Your task to perform on an android device: check android version Image 0: 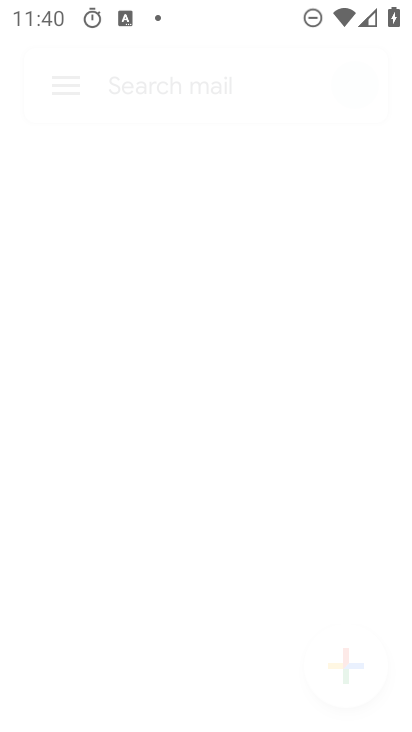
Step 0: drag from (218, 620) to (271, 125)
Your task to perform on an android device: check android version Image 1: 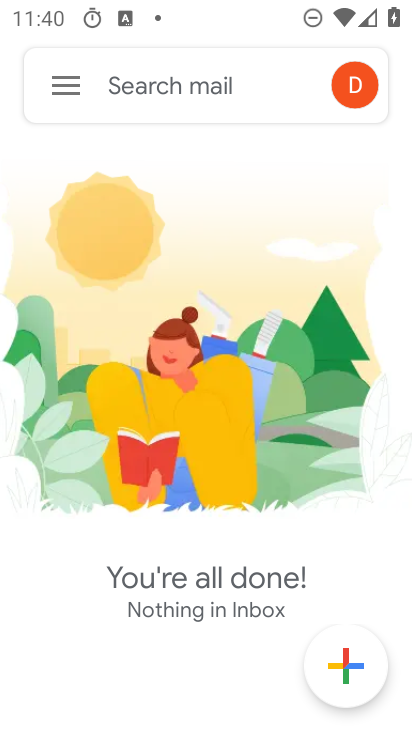
Step 1: press home button
Your task to perform on an android device: check android version Image 2: 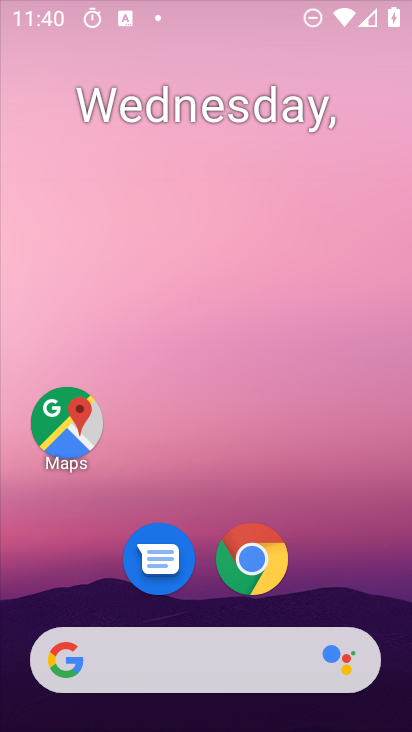
Step 2: drag from (256, 685) to (312, 79)
Your task to perform on an android device: check android version Image 3: 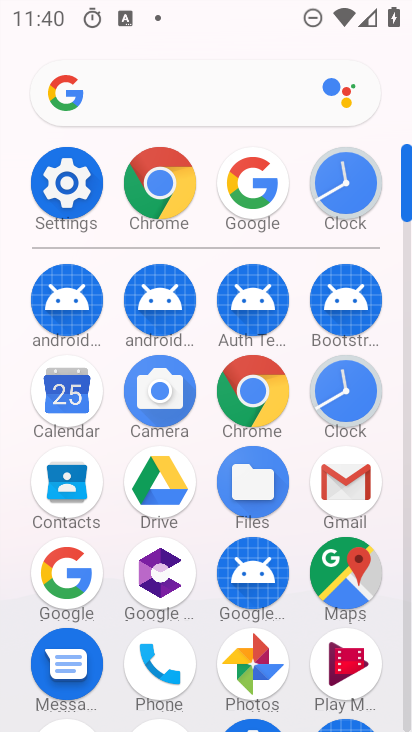
Step 3: click (71, 195)
Your task to perform on an android device: check android version Image 4: 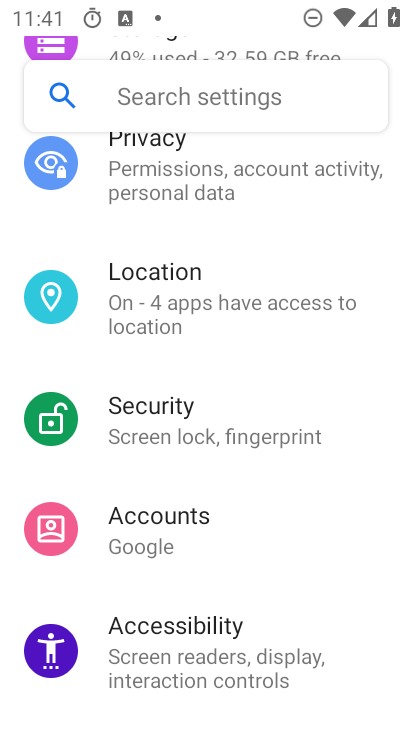
Step 4: drag from (160, 621) to (203, 116)
Your task to perform on an android device: check android version Image 5: 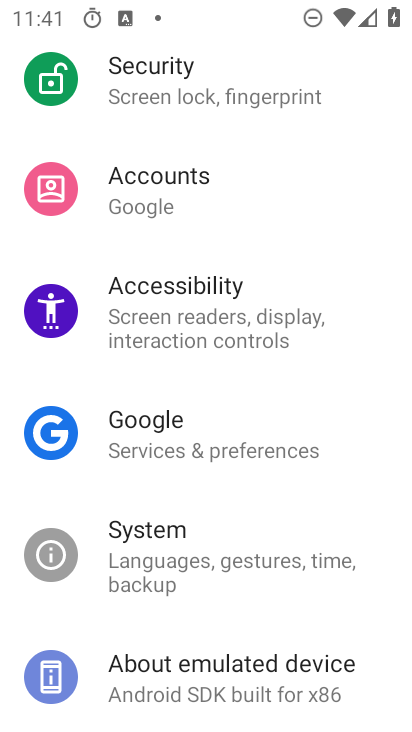
Step 5: drag from (228, 292) to (228, 254)
Your task to perform on an android device: check android version Image 6: 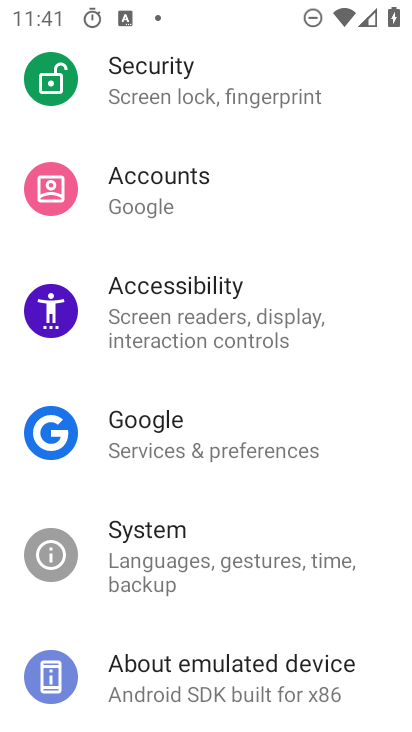
Step 6: drag from (234, 640) to (240, 320)
Your task to perform on an android device: check android version Image 7: 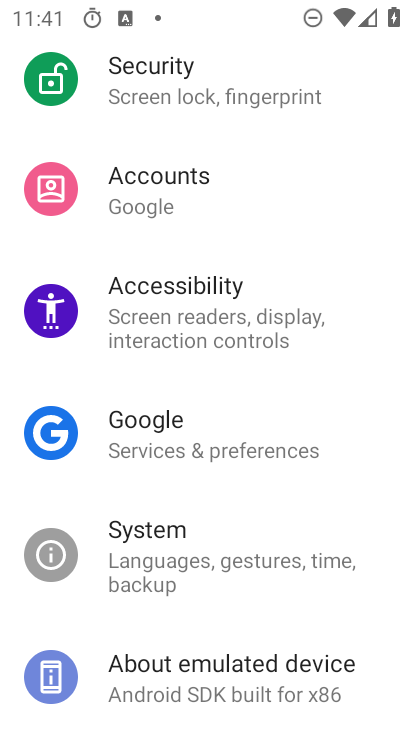
Step 7: click (260, 665)
Your task to perform on an android device: check android version Image 8: 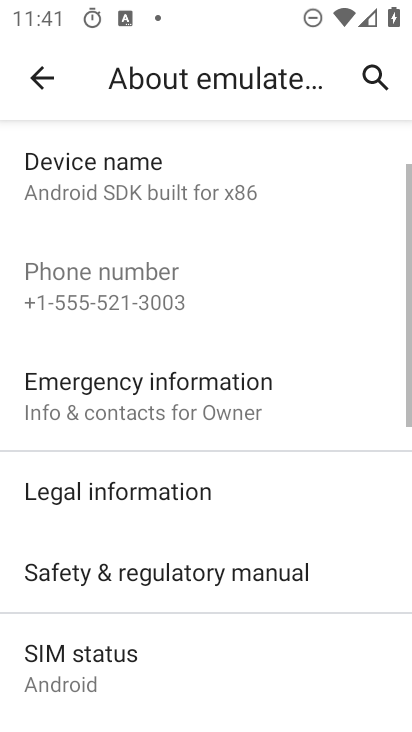
Step 8: drag from (198, 564) to (221, 246)
Your task to perform on an android device: check android version Image 9: 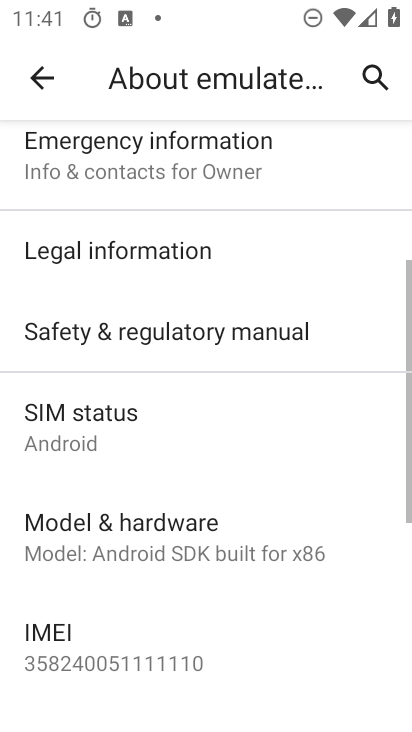
Step 9: drag from (212, 591) to (304, 77)
Your task to perform on an android device: check android version Image 10: 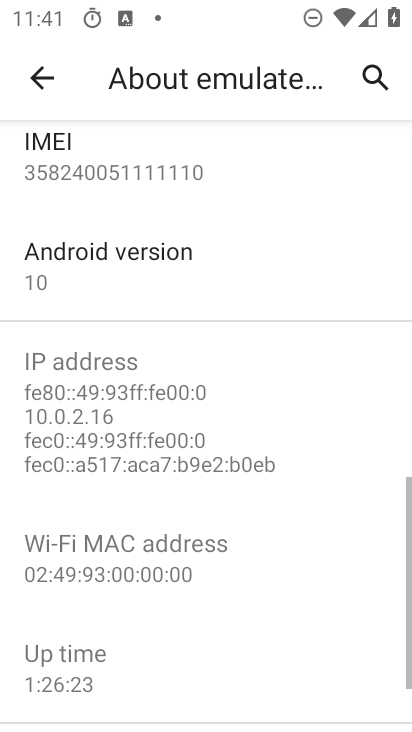
Step 10: click (186, 611)
Your task to perform on an android device: check android version Image 11: 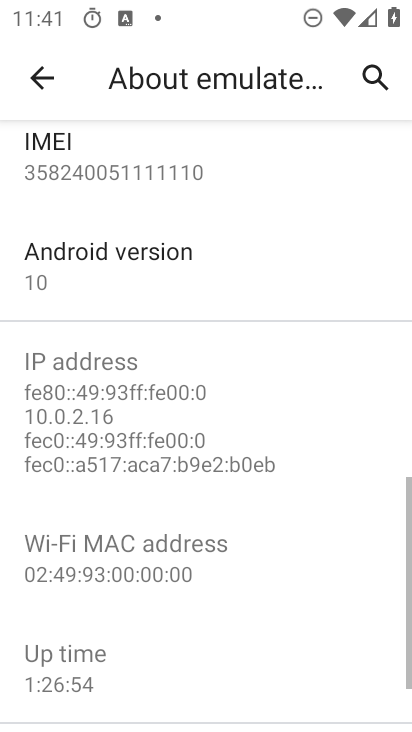
Step 11: click (160, 261)
Your task to perform on an android device: check android version Image 12: 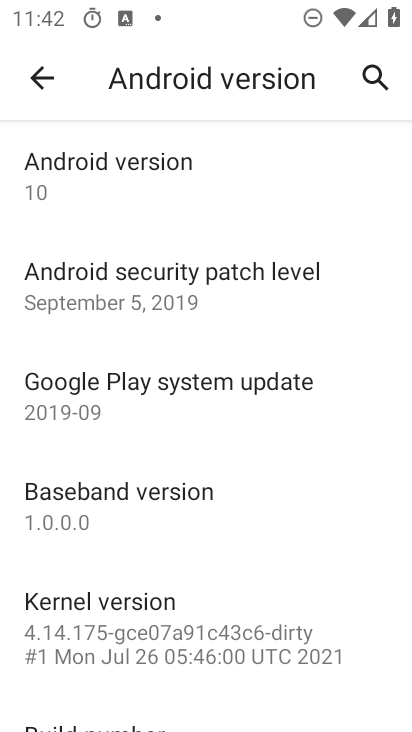
Step 12: task complete